Your task to perform on an android device: open sync settings in chrome Image 0: 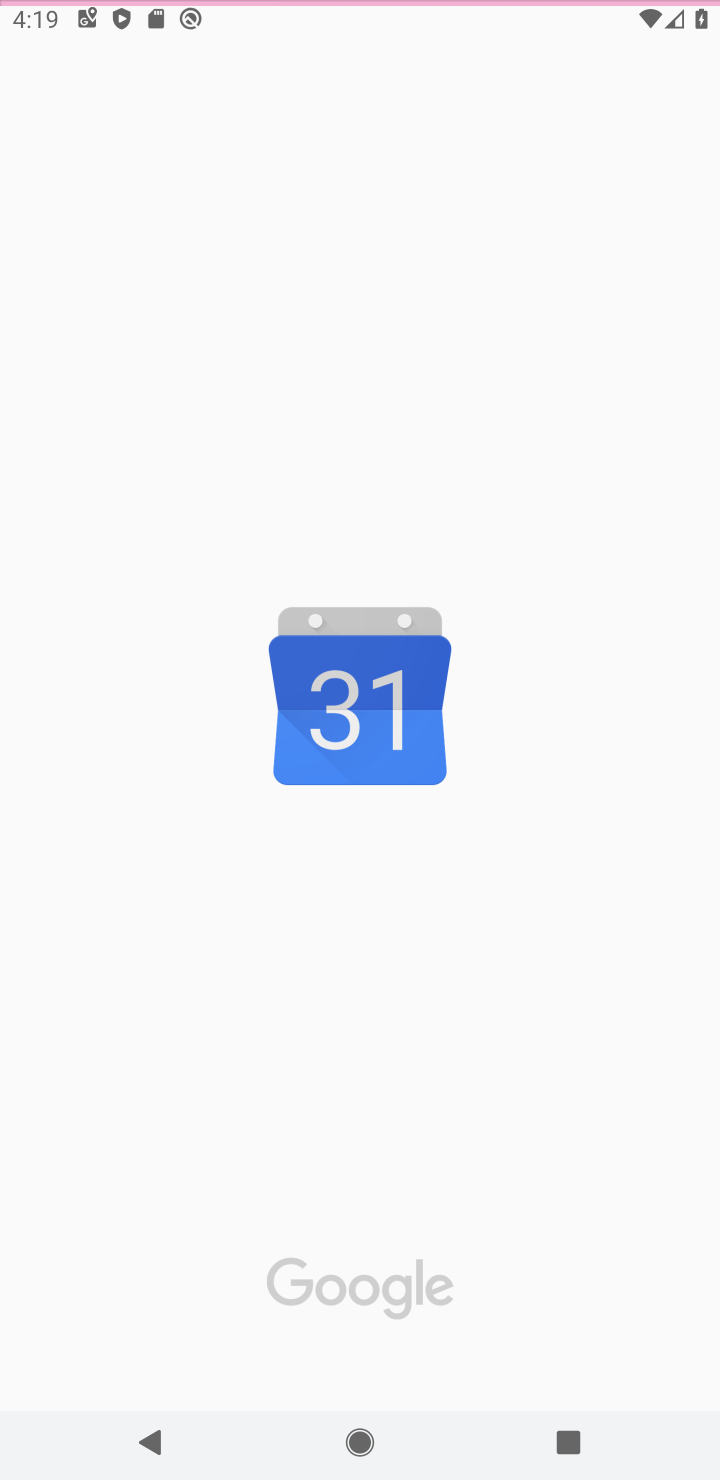
Step 0: press back button
Your task to perform on an android device: open sync settings in chrome Image 1: 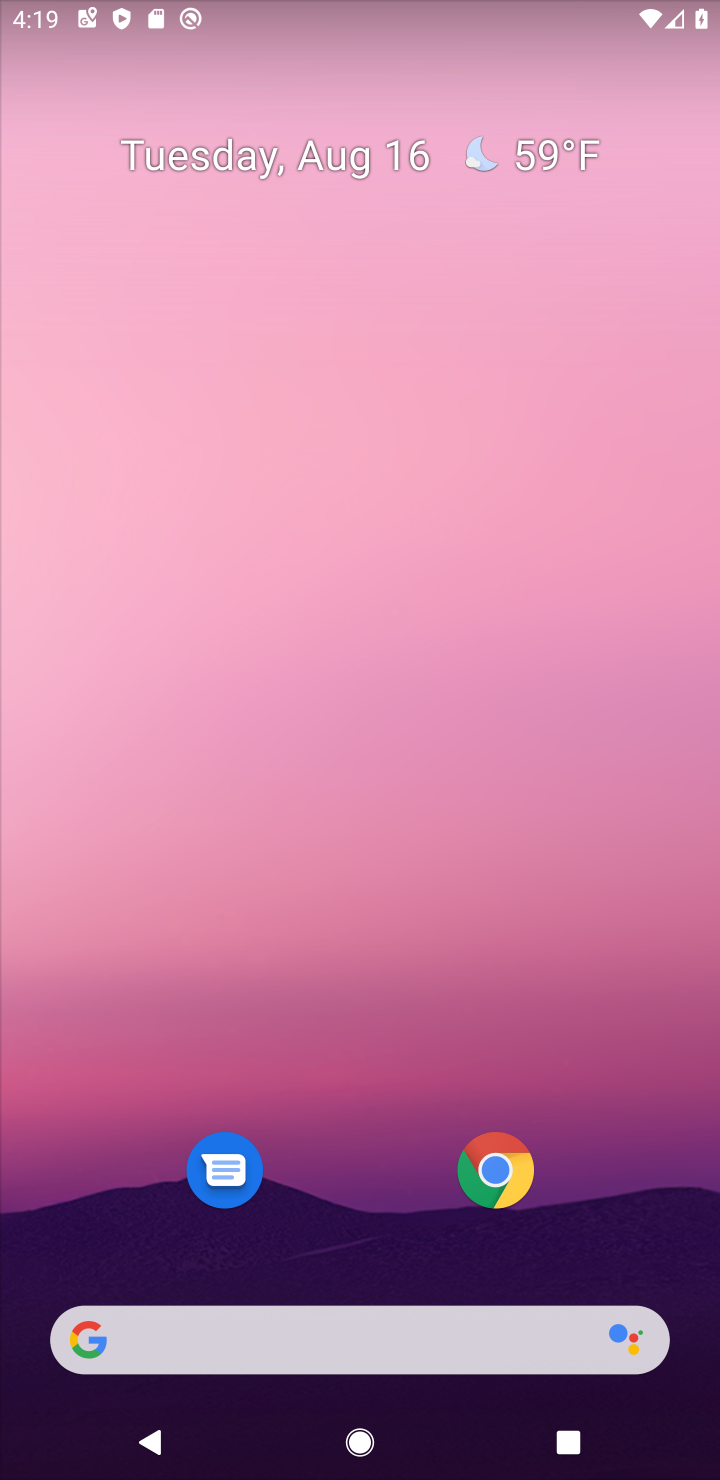
Step 1: press back button
Your task to perform on an android device: open sync settings in chrome Image 2: 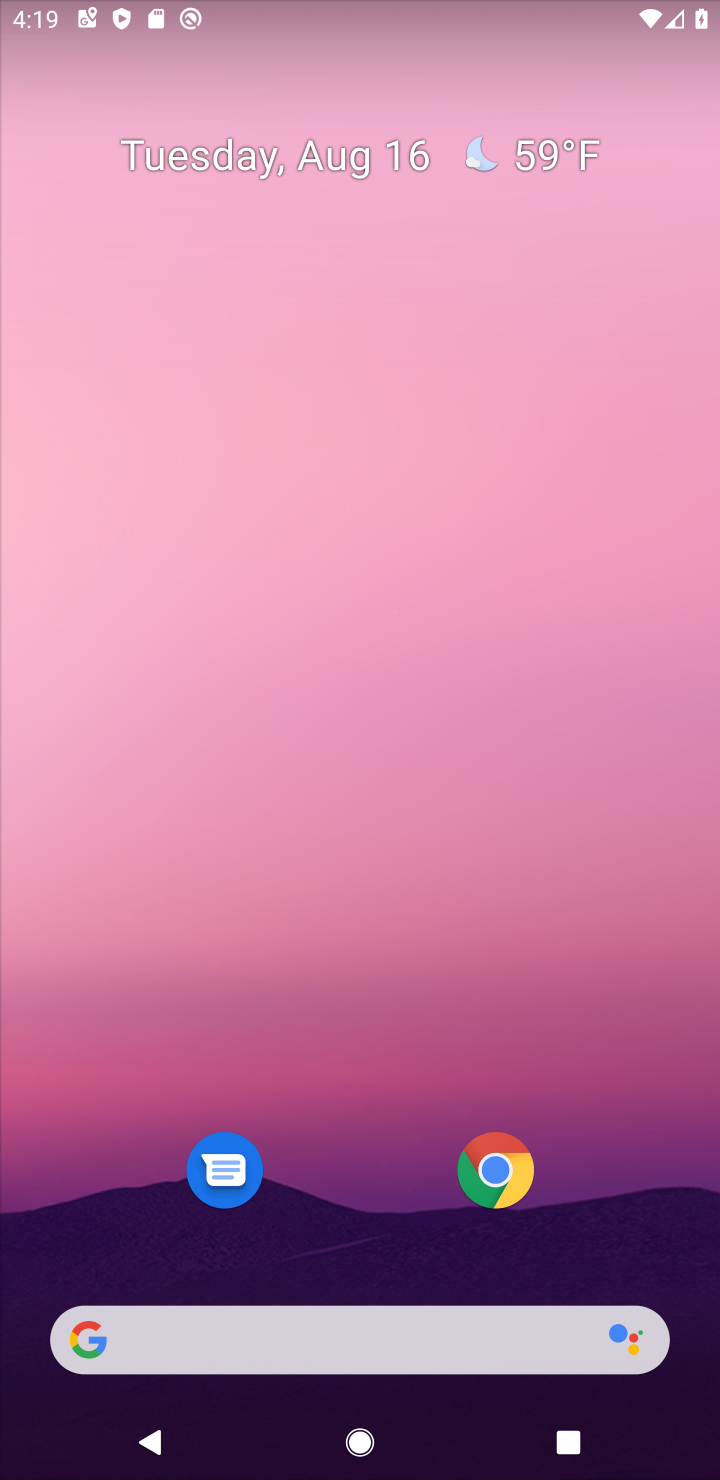
Step 2: drag from (334, 574) to (267, 103)
Your task to perform on an android device: open sync settings in chrome Image 3: 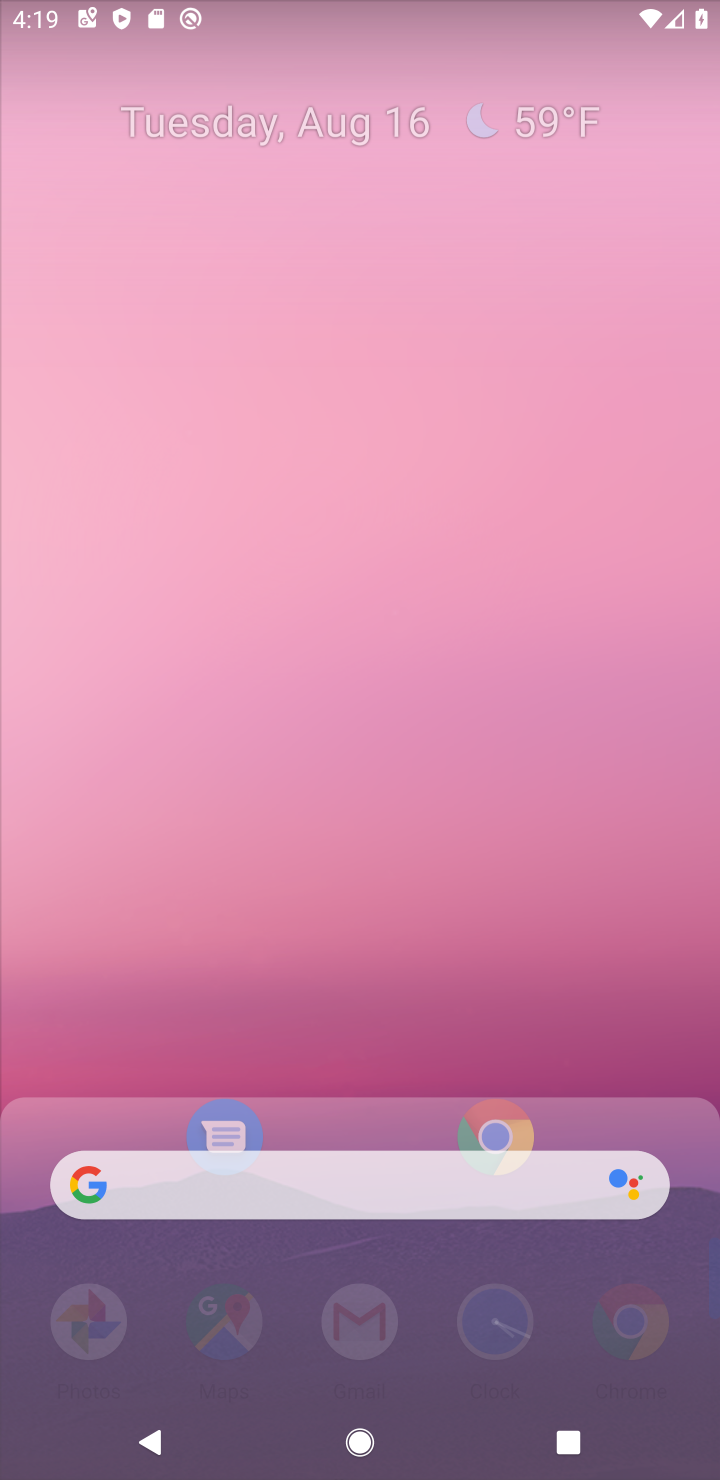
Step 3: click (295, 126)
Your task to perform on an android device: open sync settings in chrome Image 4: 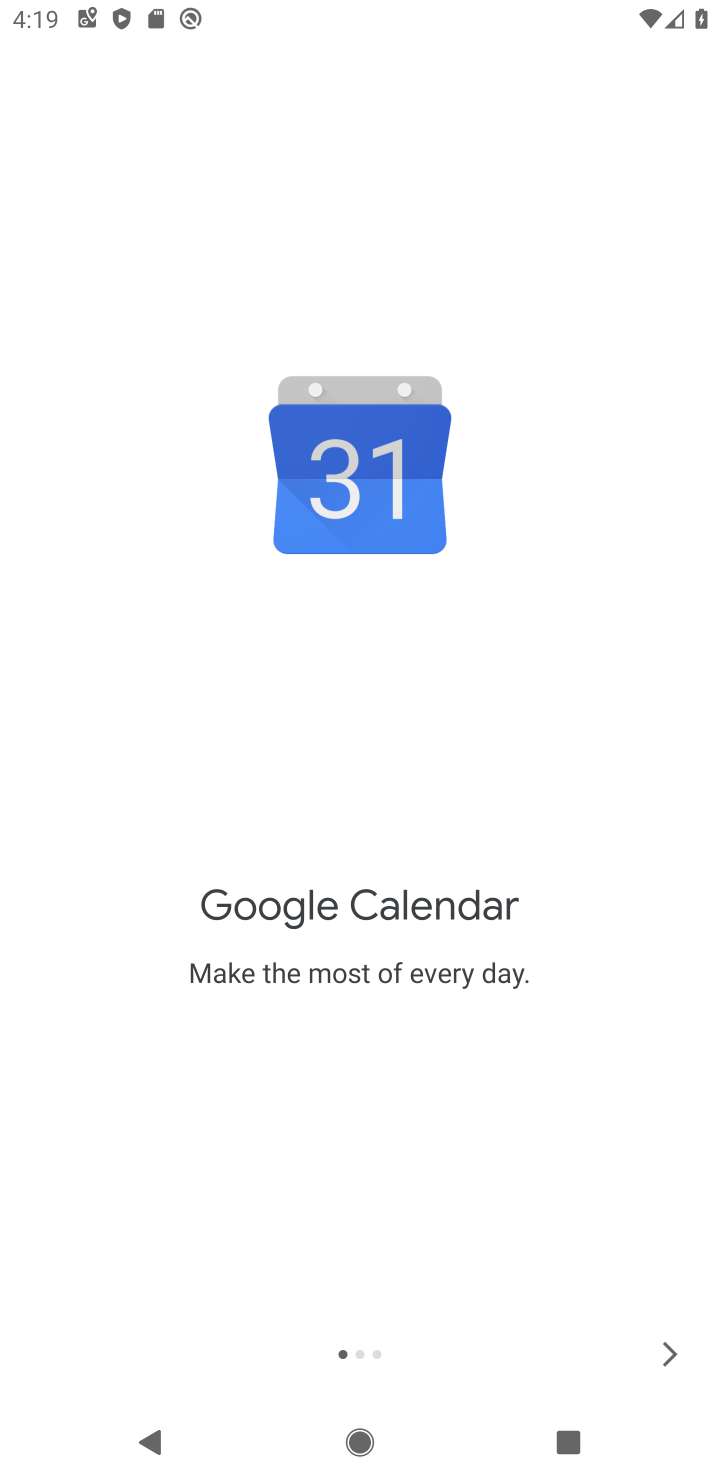
Step 4: press home button
Your task to perform on an android device: open sync settings in chrome Image 5: 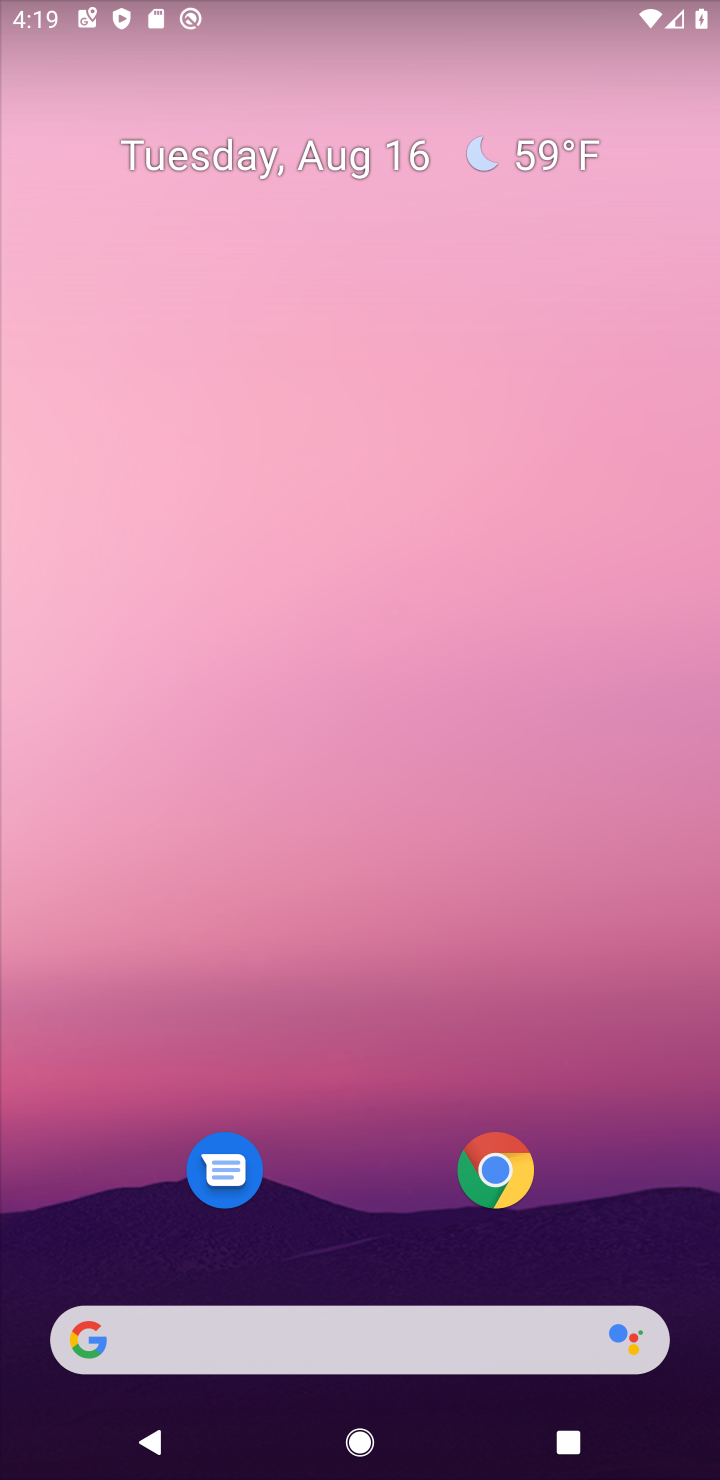
Step 5: drag from (271, 933) to (123, 133)
Your task to perform on an android device: open sync settings in chrome Image 6: 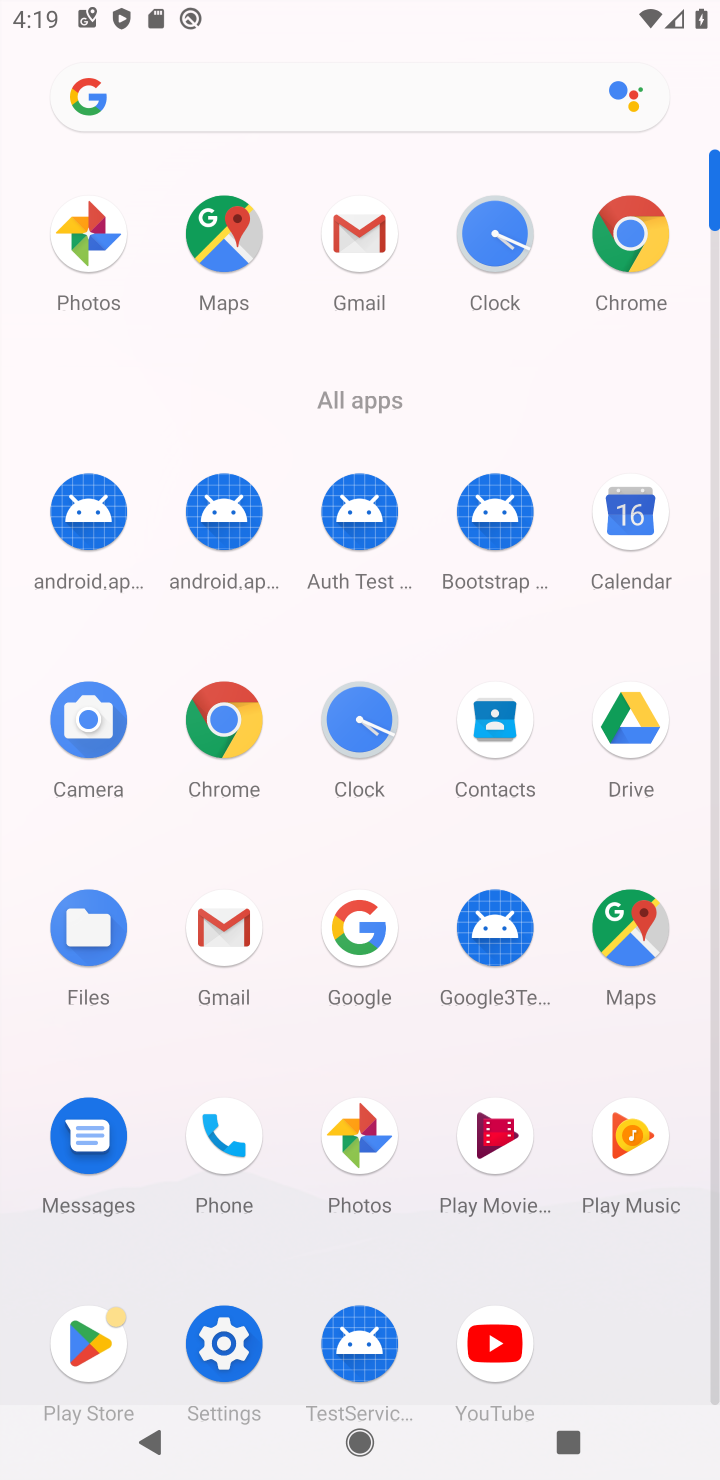
Step 6: click (604, 244)
Your task to perform on an android device: open sync settings in chrome Image 7: 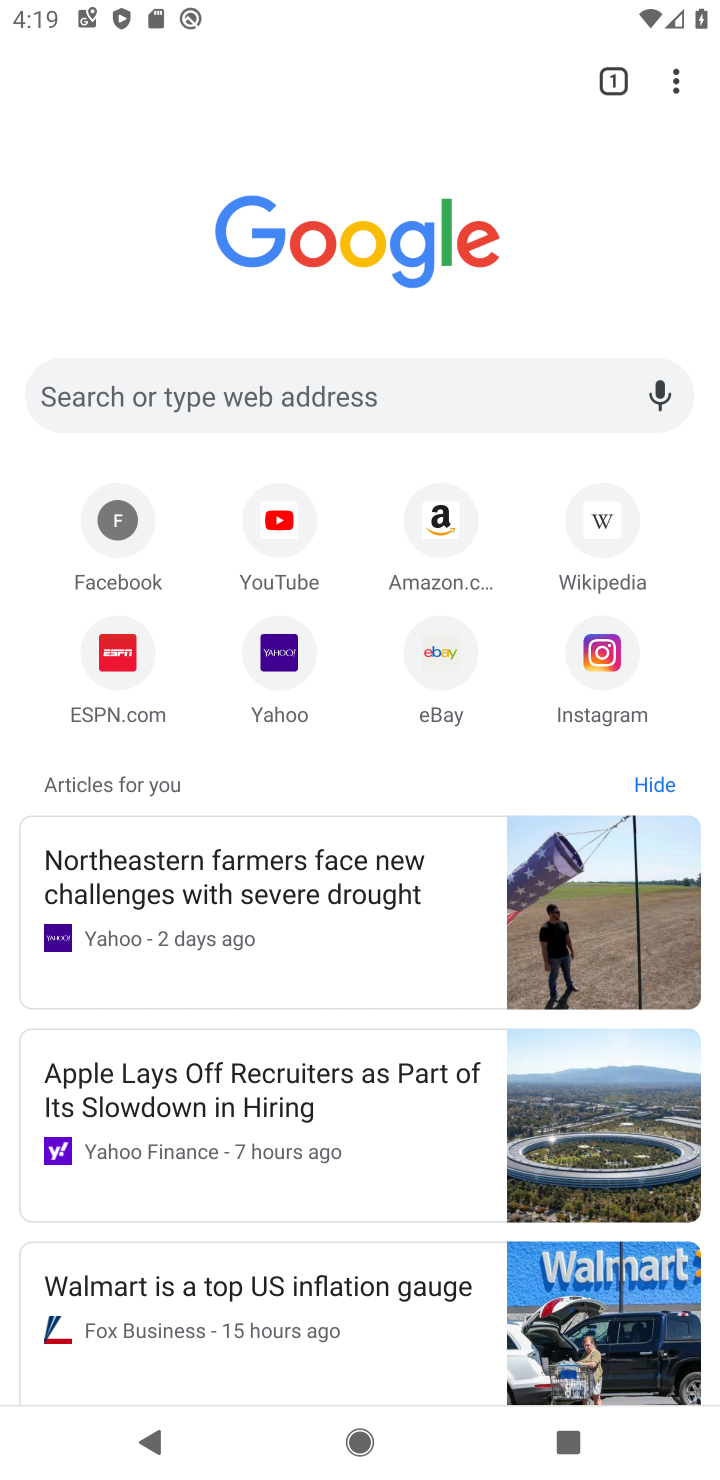
Step 7: click (670, 86)
Your task to perform on an android device: open sync settings in chrome Image 8: 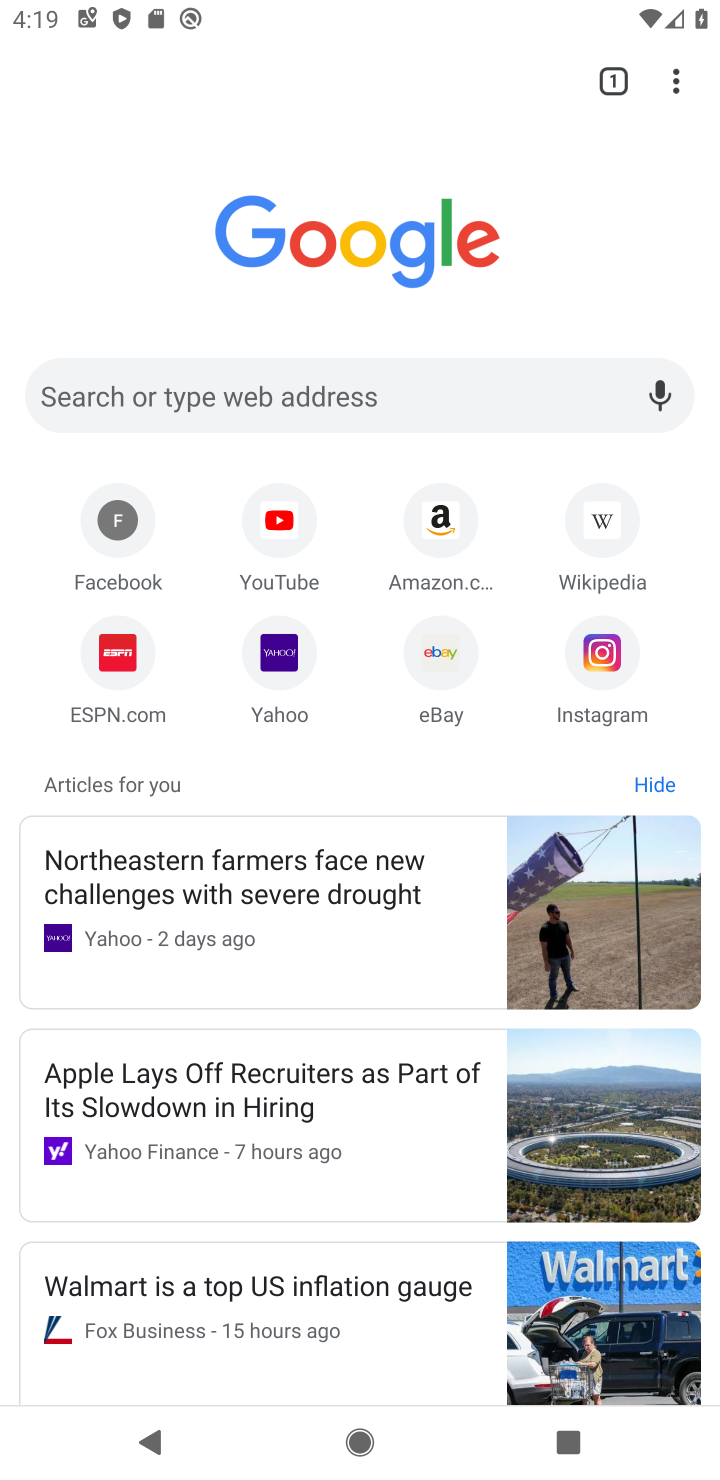
Step 8: drag from (689, 77) to (382, 681)
Your task to perform on an android device: open sync settings in chrome Image 9: 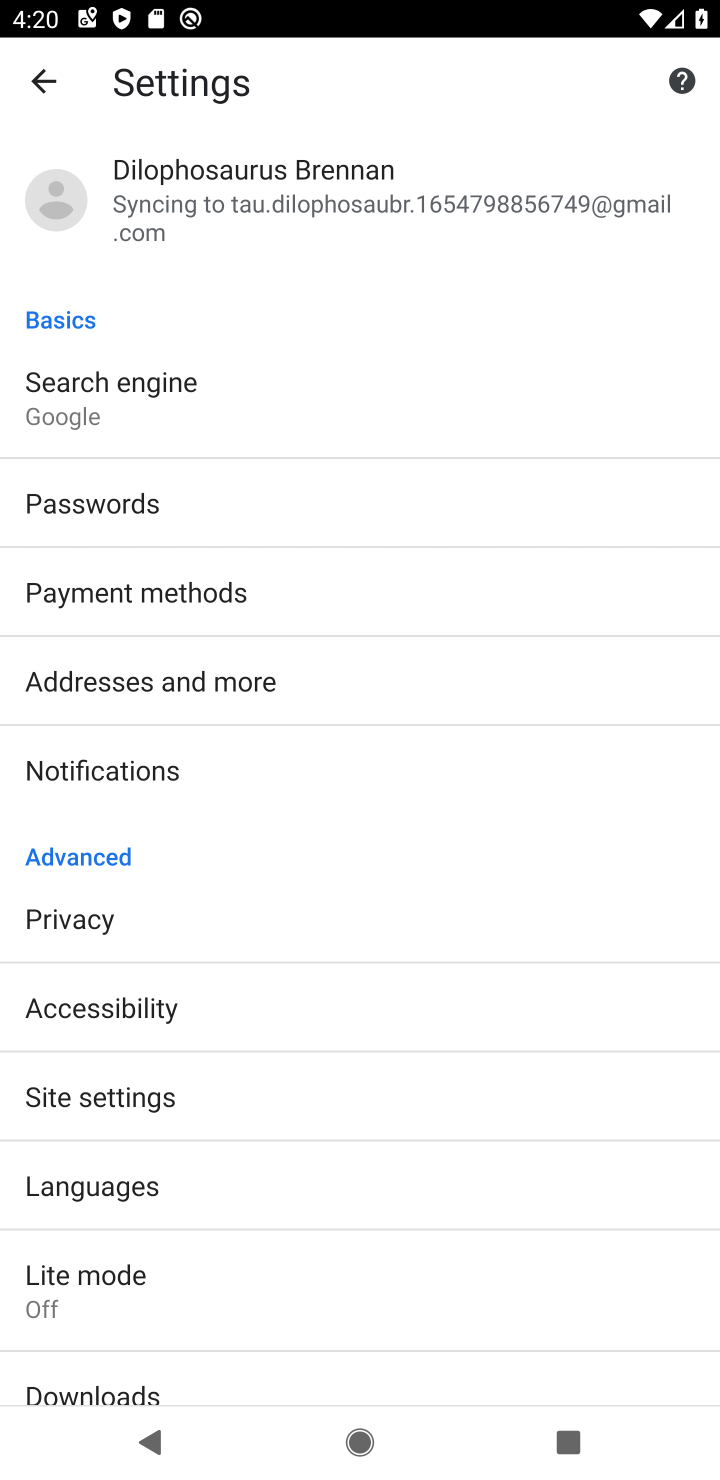
Step 9: click (256, 253)
Your task to perform on an android device: open sync settings in chrome Image 10: 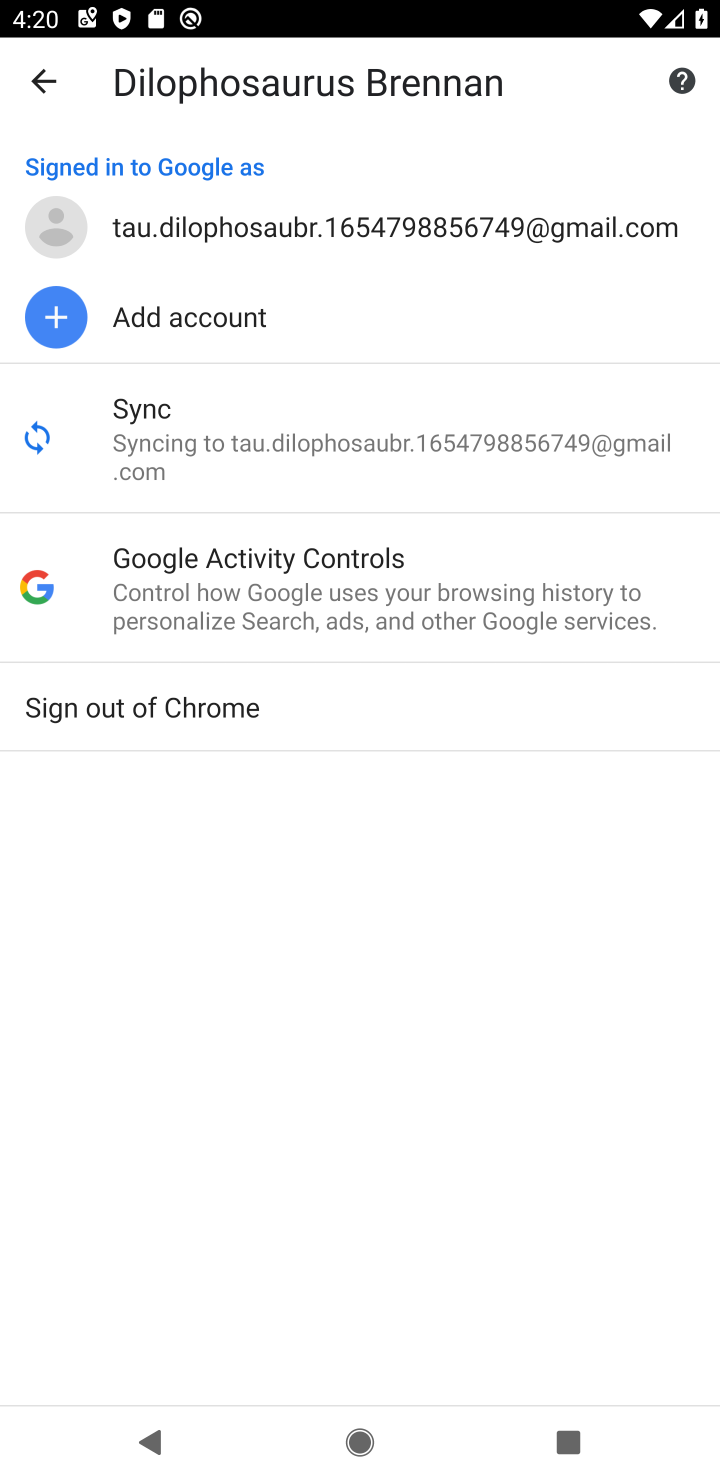
Step 10: click (247, 453)
Your task to perform on an android device: open sync settings in chrome Image 11: 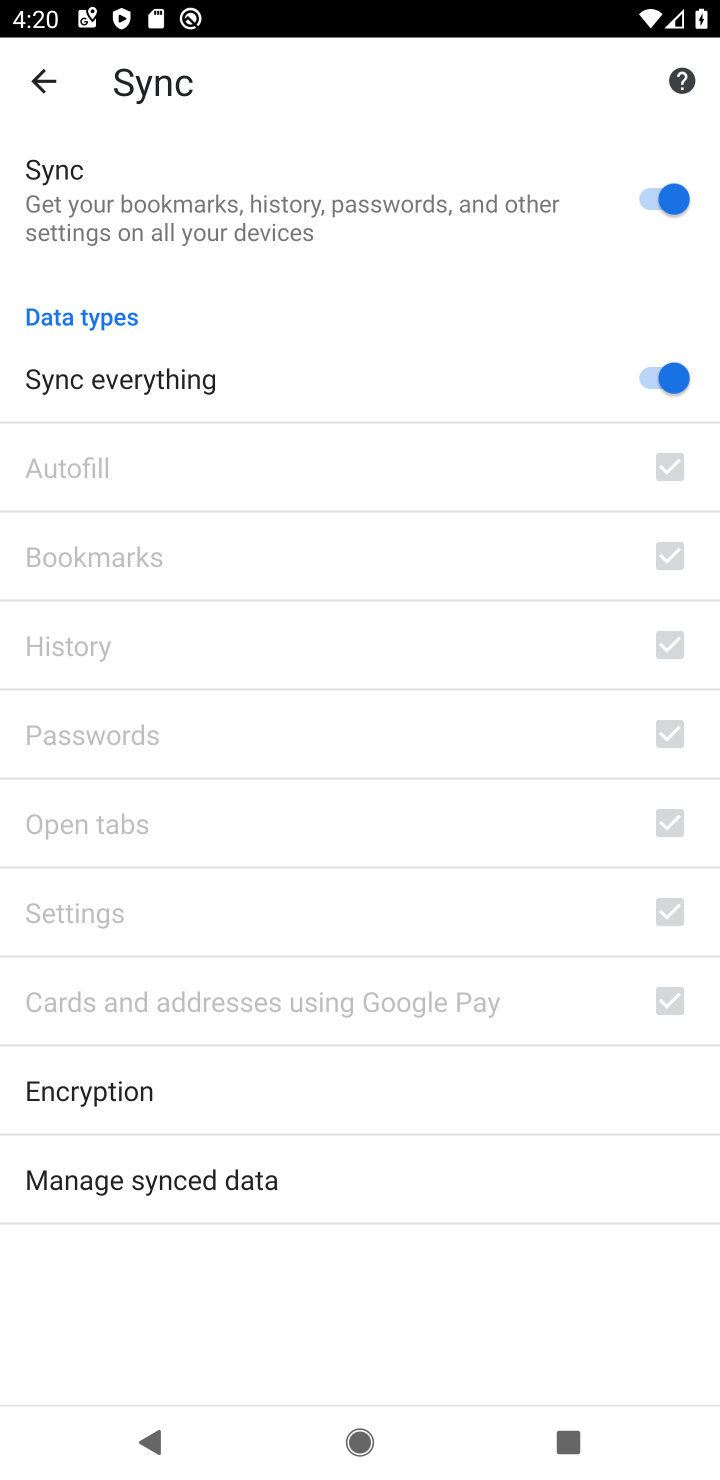
Step 11: task complete